Your task to perform on an android device: Show the shopping cart on walmart.com. Image 0: 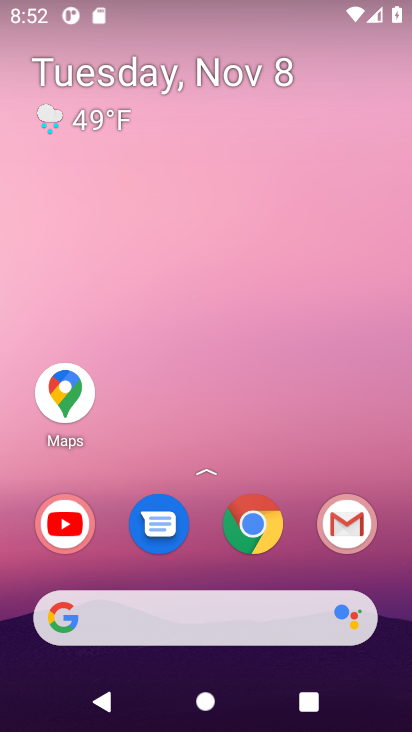
Step 0: click (253, 527)
Your task to perform on an android device: Show the shopping cart on walmart.com. Image 1: 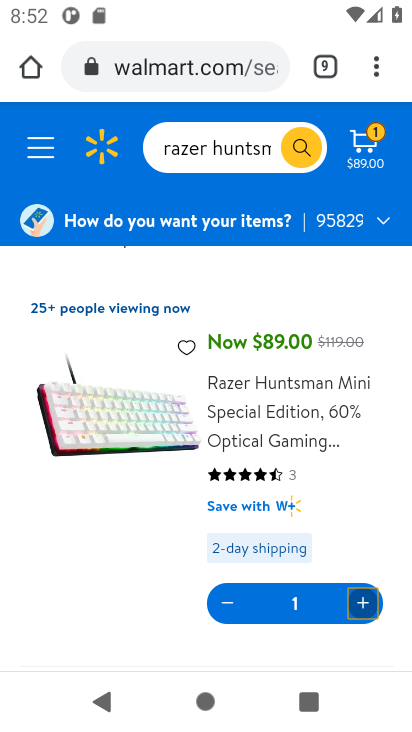
Step 1: click (357, 147)
Your task to perform on an android device: Show the shopping cart on walmart.com. Image 2: 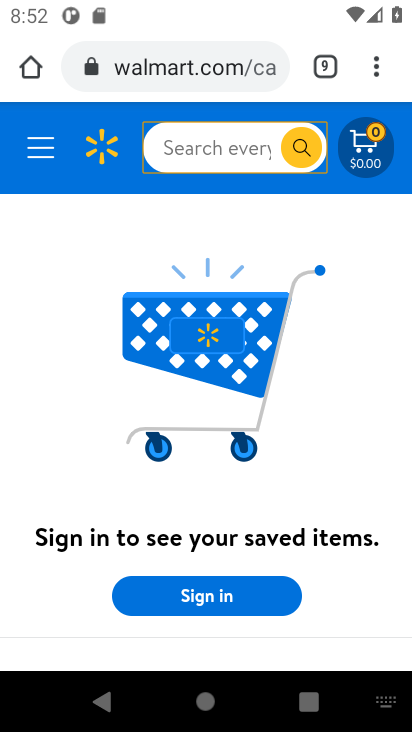
Step 2: task complete